Your task to perform on an android device: When is my next appointment? Image 0: 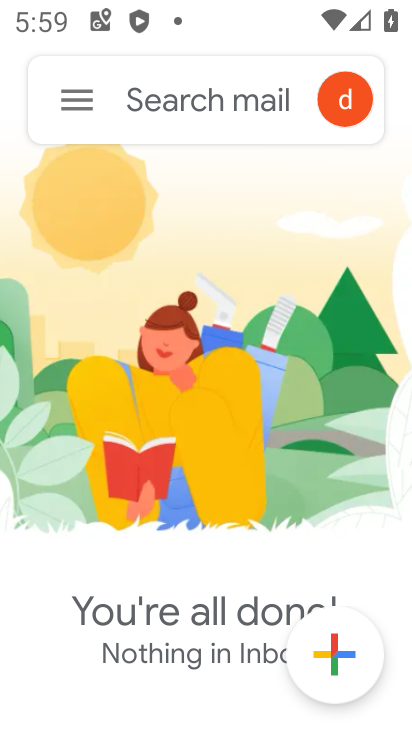
Step 0: press home button
Your task to perform on an android device: When is my next appointment? Image 1: 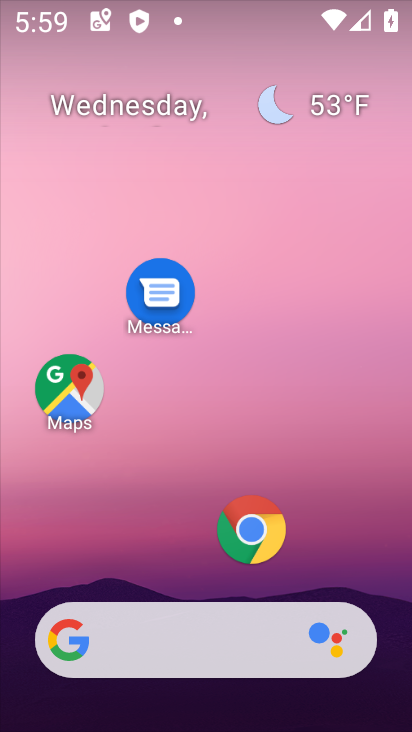
Step 1: drag from (308, 558) to (217, 172)
Your task to perform on an android device: When is my next appointment? Image 2: 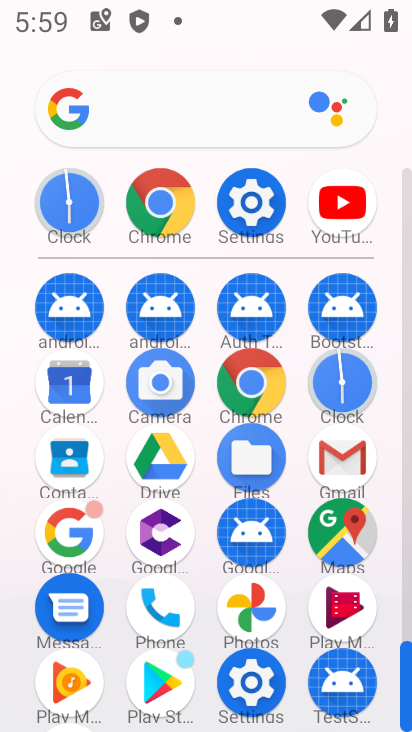
Step 2: click (71, 404)
Your task to perform on an android device: When is my next appointment? Image 3: 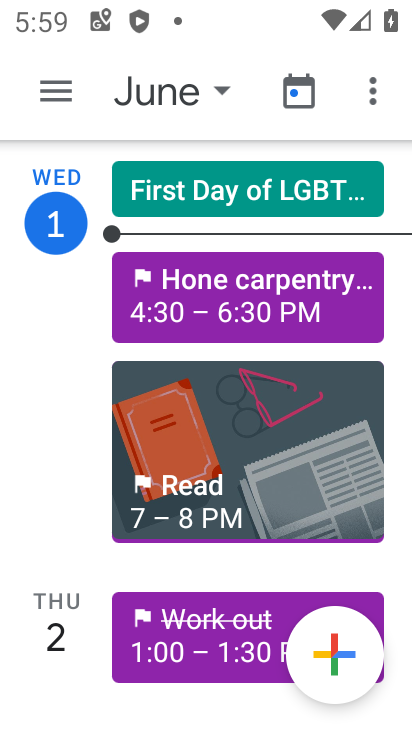
Step 3: drag from (172, 571) to (234, 242)
Your task to perform on an android device: When is my next appointment? Image 4: 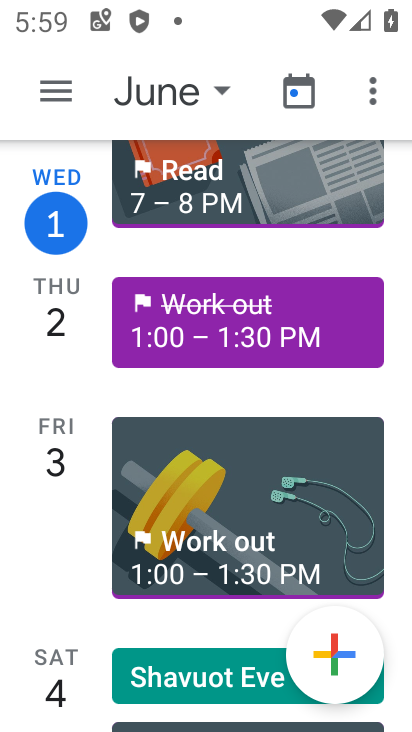
Step 4: drag from (227, 603) to (243, 192)
Your task to perform on an android device: When is my next appointment? Image 5: 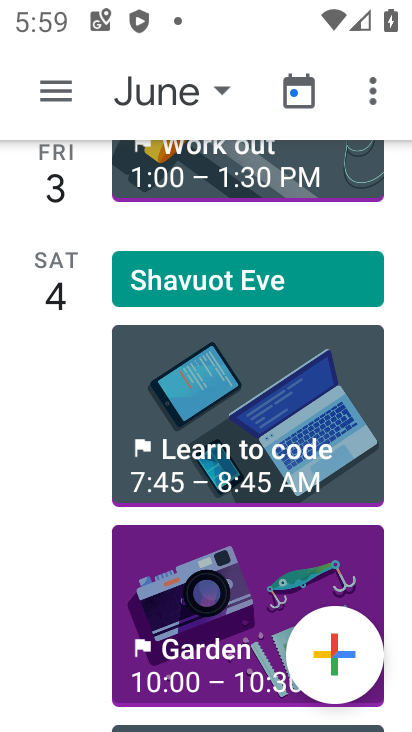
Step 5: drag from (230, 535) to (230, 171)
Your task to perform on an android device: When is my next appointment? Image 6: 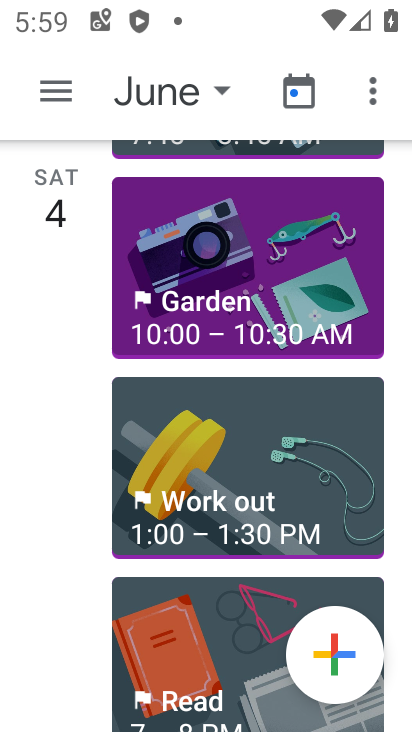
Step 6: drag from (238, 611) to (246, 249)
Your task to perform on an android device: When is my next appointment? Image 7: 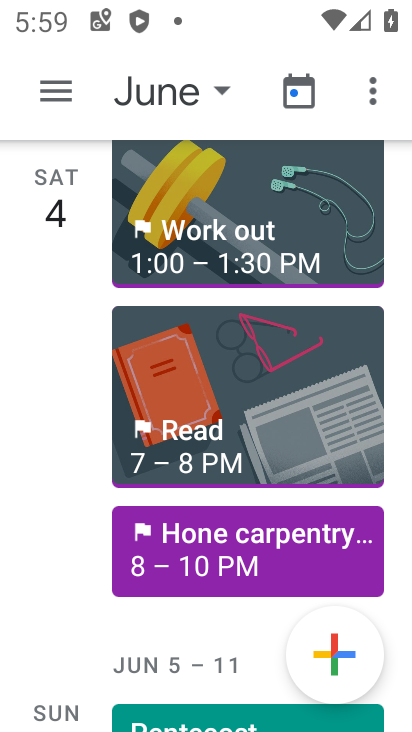
Step 7: click (222, 727)
Your task to perform on an android device: When is my next appointment? Image 8: 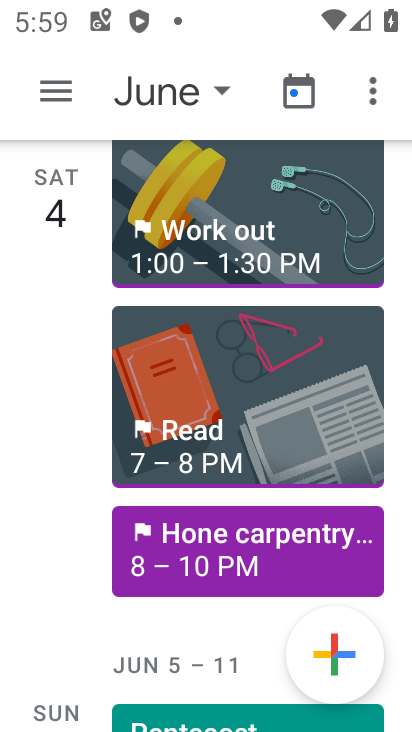
Step 8: drag from (217, 687) to (217, 306)
Your task to perform on an android device: When is my next appointment? Image 9: 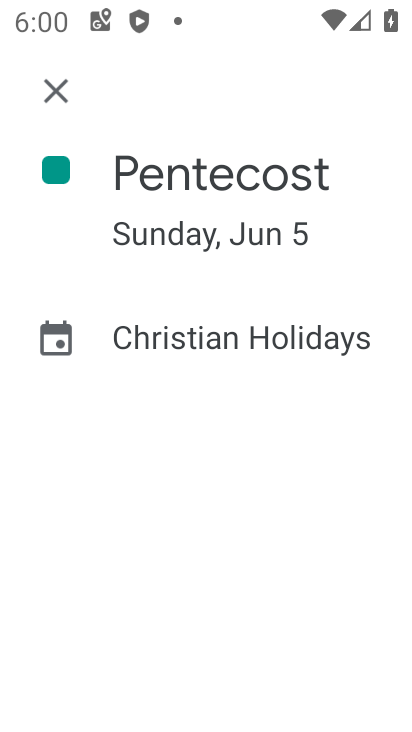
Step 9: click (48, 89)
Your task to perform on an android device: When is my next appointment? Image 10: 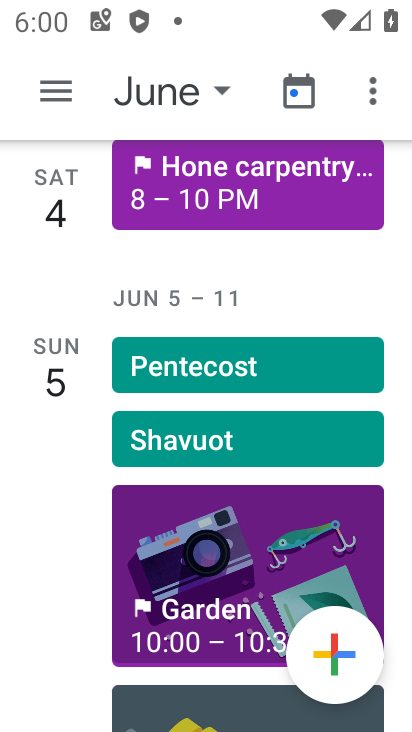
Step 10: task complete